Your task to perform on an android device: Open Google Image 0: 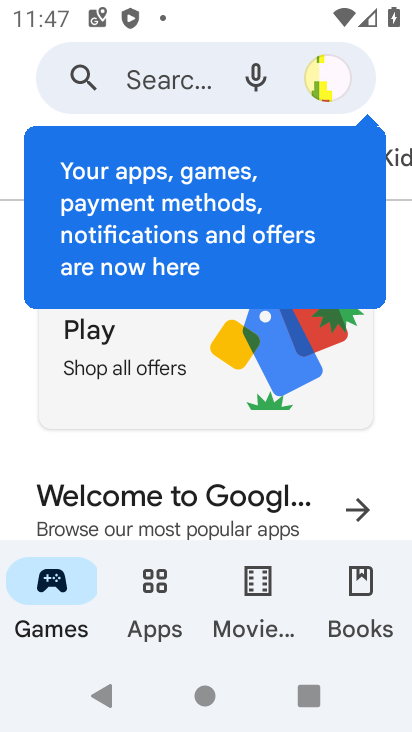
Step 0: press home button
Your task to perform on an android device: Open Google Image 1: 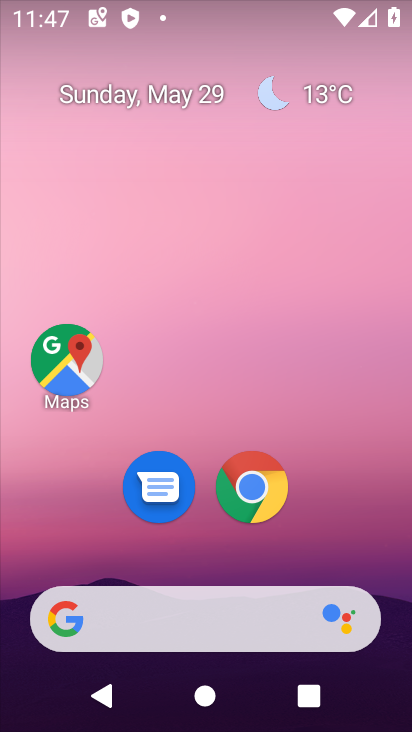
Step 1: drag from (363, 491) to (328, 4)
Your task to perform on an android device: Open Google Image 2: 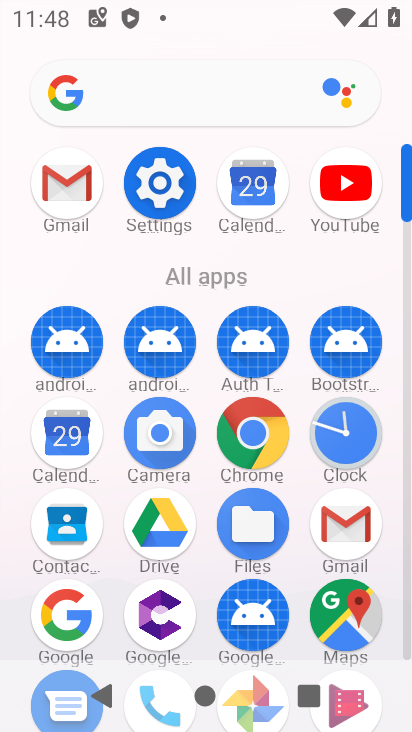
Step 2: click (96, 609)
Your task to perform on an android device: Open Google Image 3: 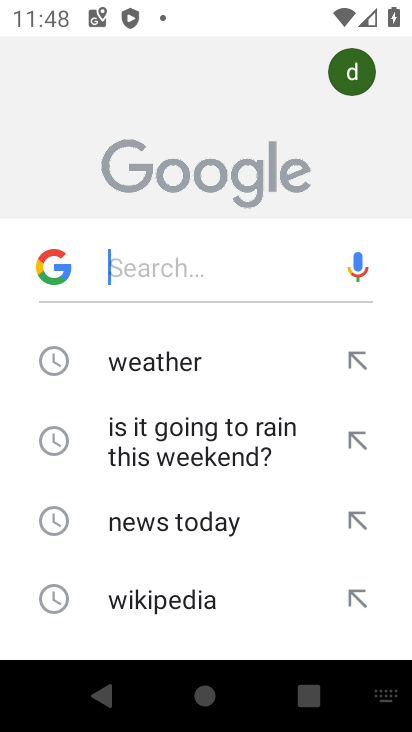
Step 3: task complete